Your task to perform on an android device: What's the weather today? Image 0: 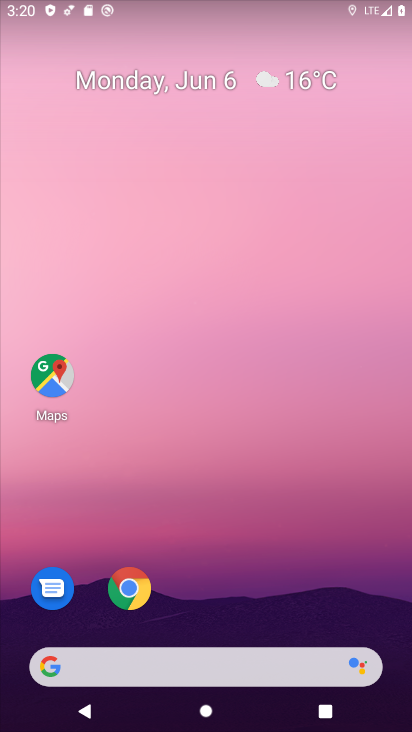
Step 0: click (237, 668)
Your task to perform on an android device: What's the weather today? Image 1: 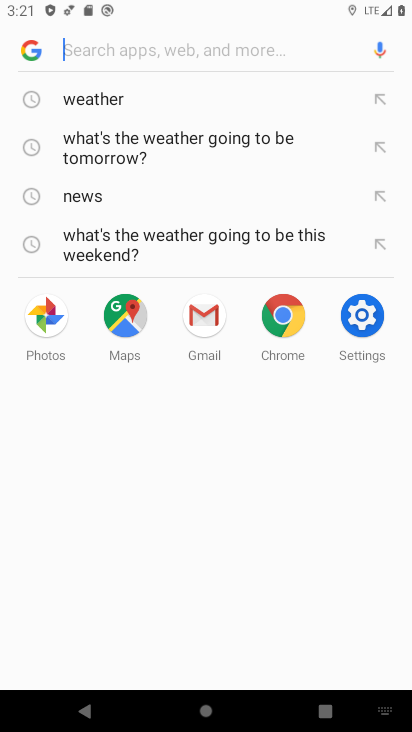
Step 1: type "What's the weather today?"
Your task to perform on an android device: What's the weather today? Image 2: 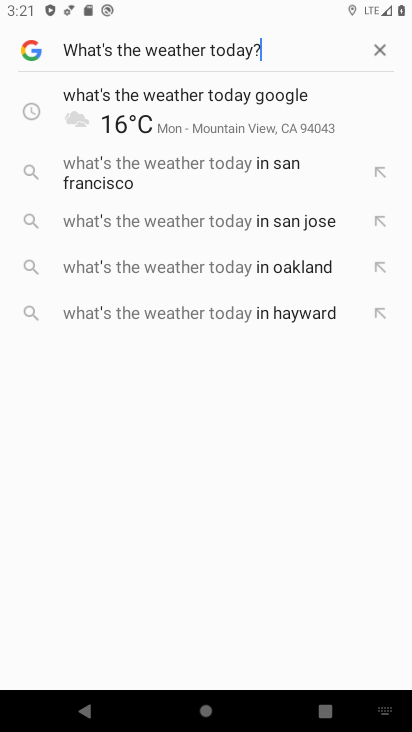
Step 2: click (274, 102)
Your task to perform on an android device: What's the weather today? Image 3: 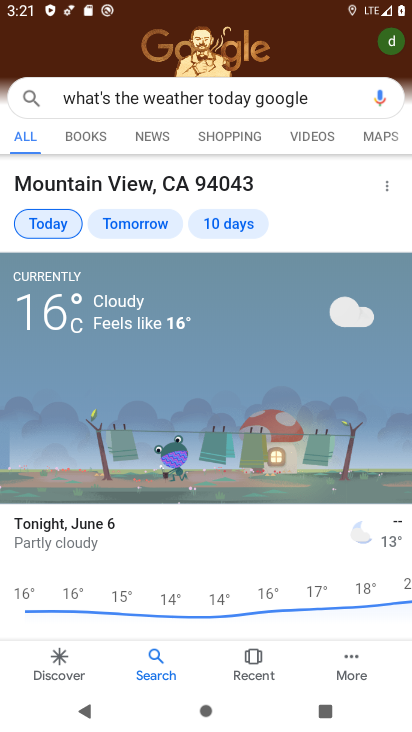
Step 3: task complete